Your task to perform on an android device: turn on the 24-hour format for clock Image 0: 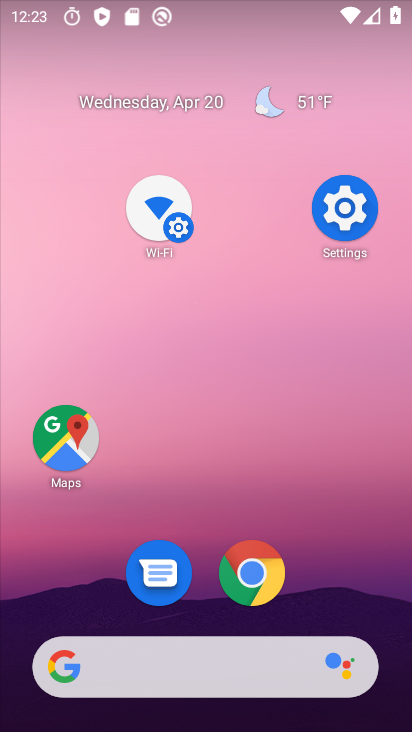
Step 0: drag from (343, 598) to (347, 294)
Your task to perform on an android device: turn on the 24-hour format for clock Image 1: 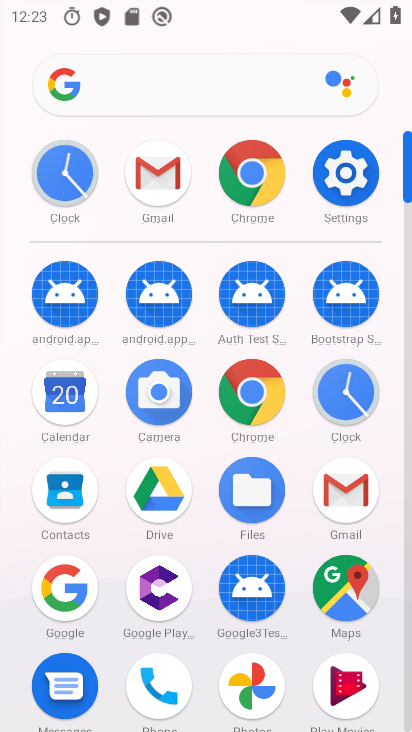
Step 1: click (334, 415)
Your task to perform on an android device: turn on the 24-hour format for clock Image 2: 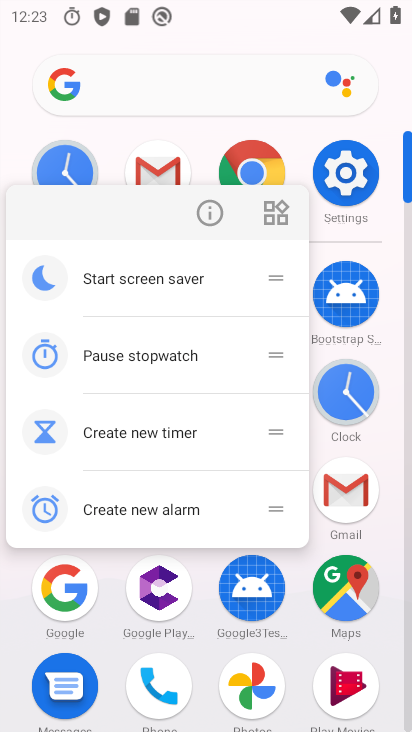
Step 2: click (330, 396)
Your task to perform on an android device: turn on the 24-hour format for clock Image 3: 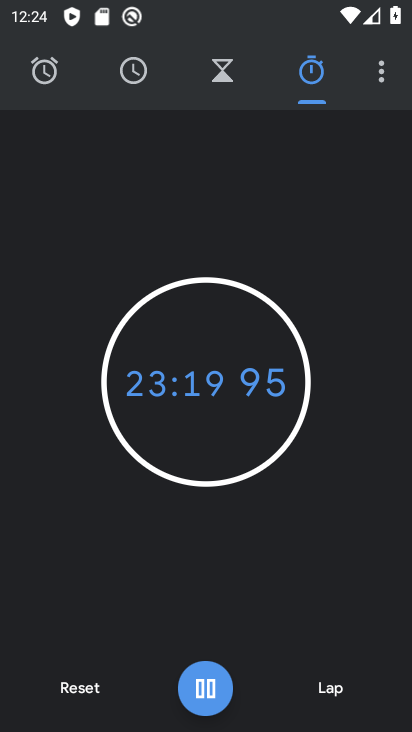
Step 3: click (382, 84)
Your task to perform on an android device: turn on the 24-hour format for clock Image 4: 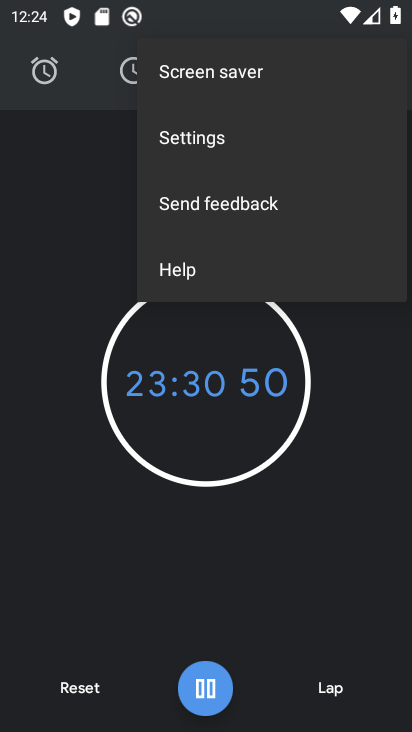
Step 4: click (204, 133)
Your task to perform on an android device: turn on the 24-hour format for clock Image 5: 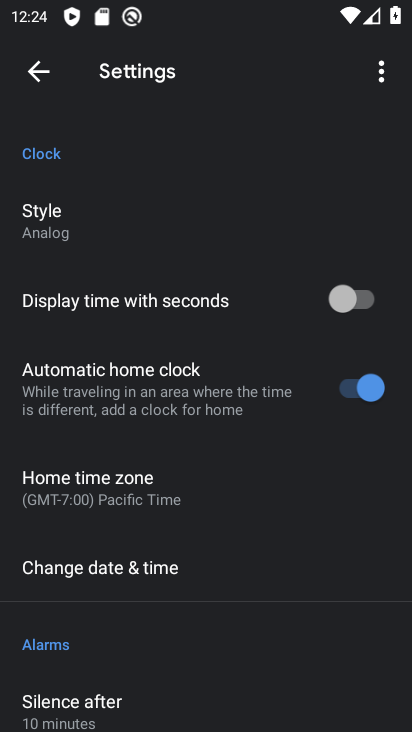
Step 5: click (171, 570)
Your task to perform on an android device: turn on the 24-hour format for clock Image 6: 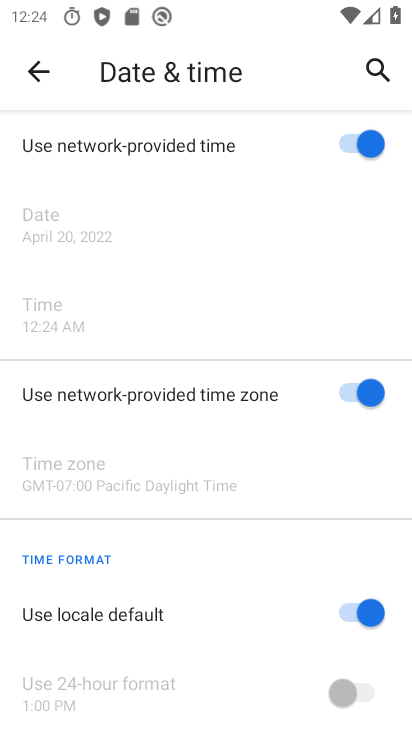
Step 6: drag from (250, 612) to (281, 301)
Your task to perform on an android device: turn on the 24-hour format for clock Image 7: 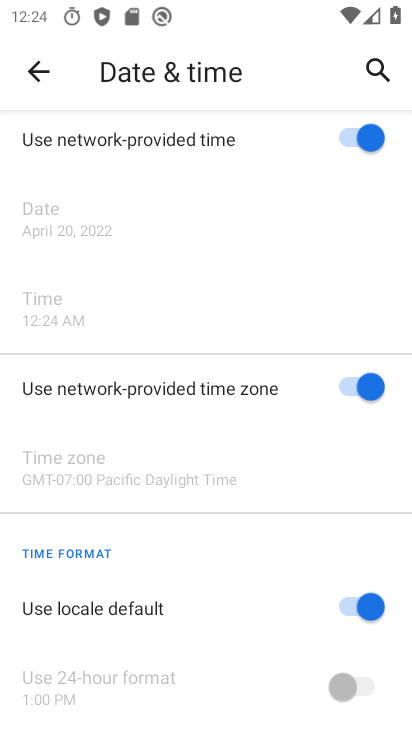
Step 7: click (369, 607)
Your task to perform on an android device: turn on the 24-hour format for clock Image 8: 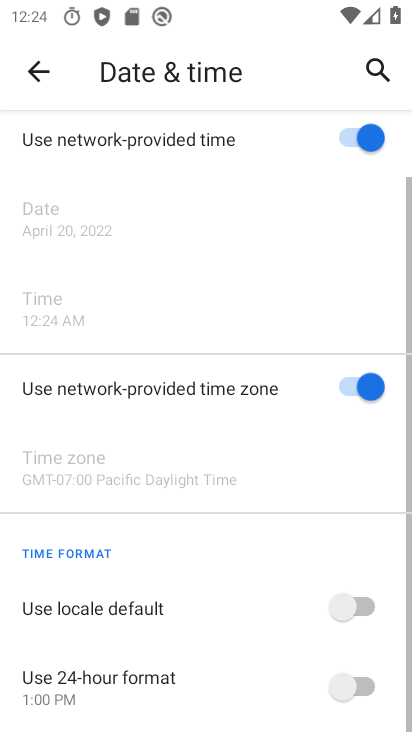
Step 8: click (348, 681)
Your task to perform on an android device: turn on the 24-hour format for clock Image 9: 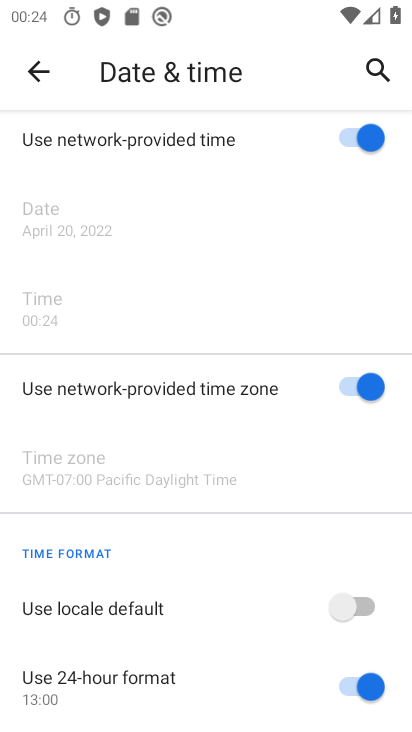
Step 9: task complete